Your task to perform on an android device: Go to Yahoo.com Image 0: 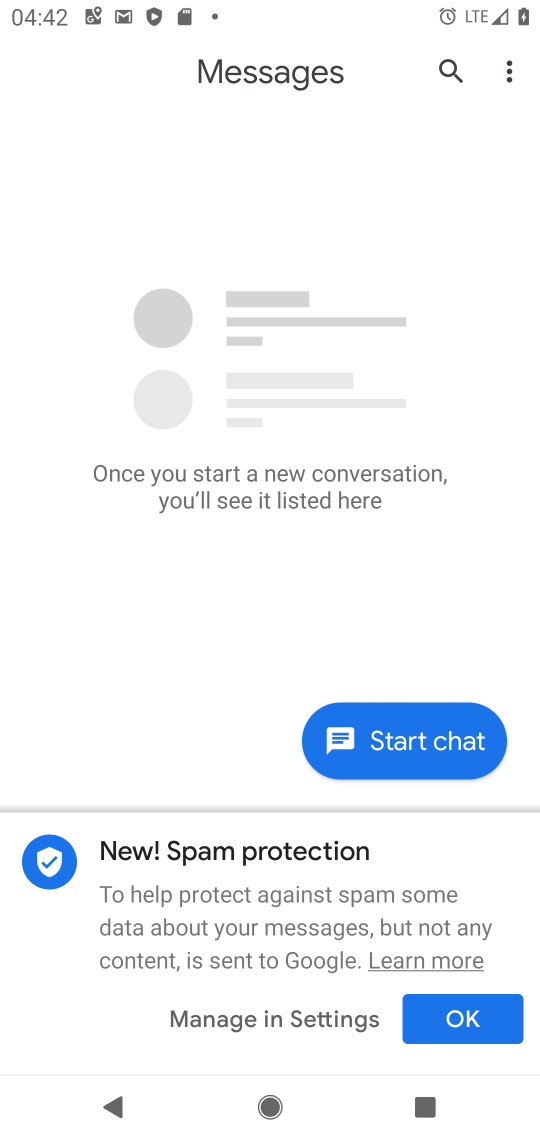
Step 0: press back button
Your task to perform on an android device: Go to Yahoo.com Image 1: 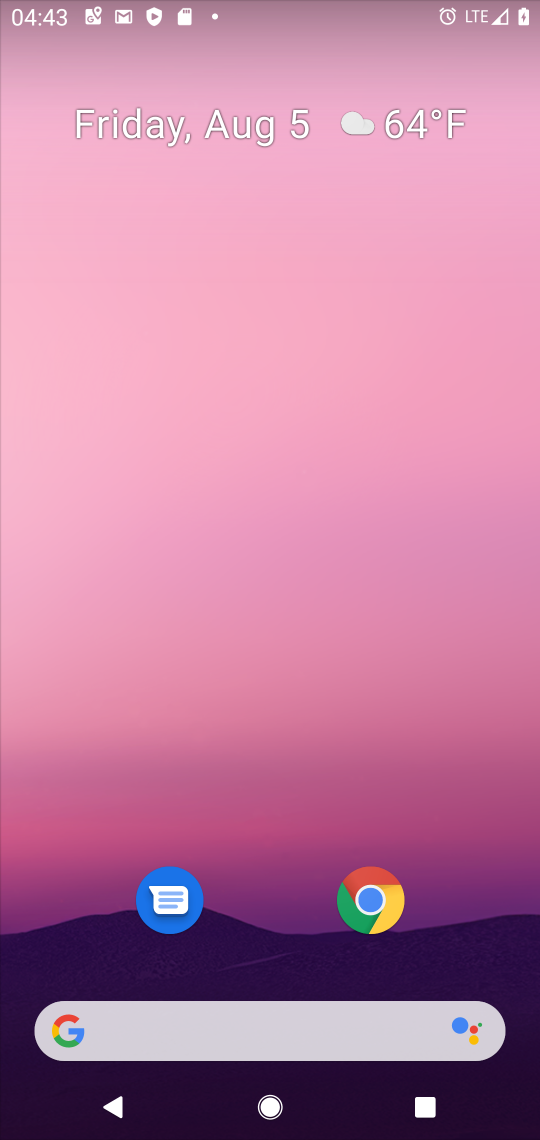
Step 1: click (386, 915)
Your task to perform on an android device: Go to Yahoo.com Image 2: 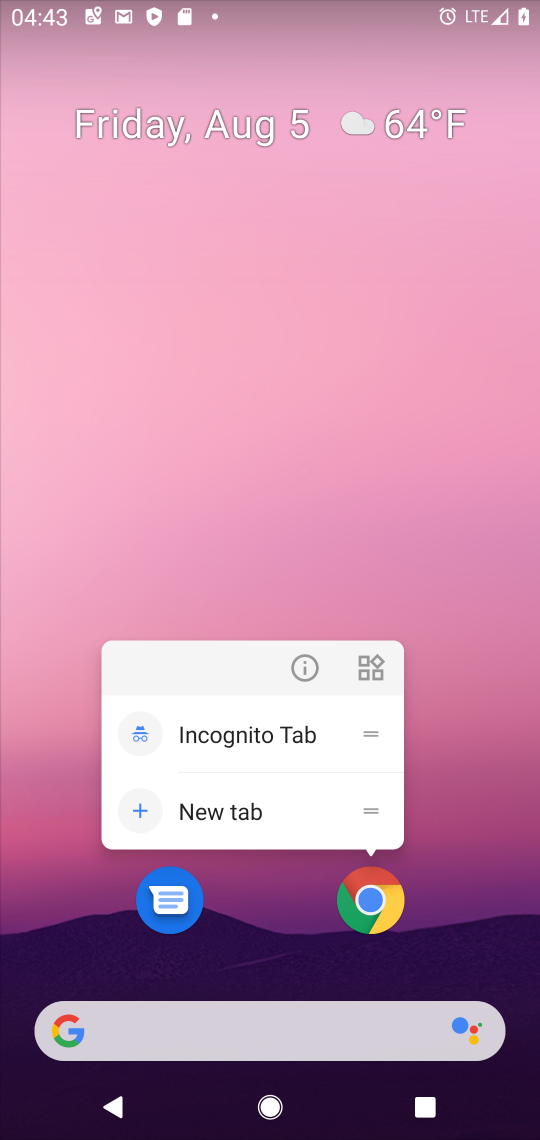
Step 2: click (388, 899)
Your task to perform on an android device: Go to Yahoo.com Image 3: 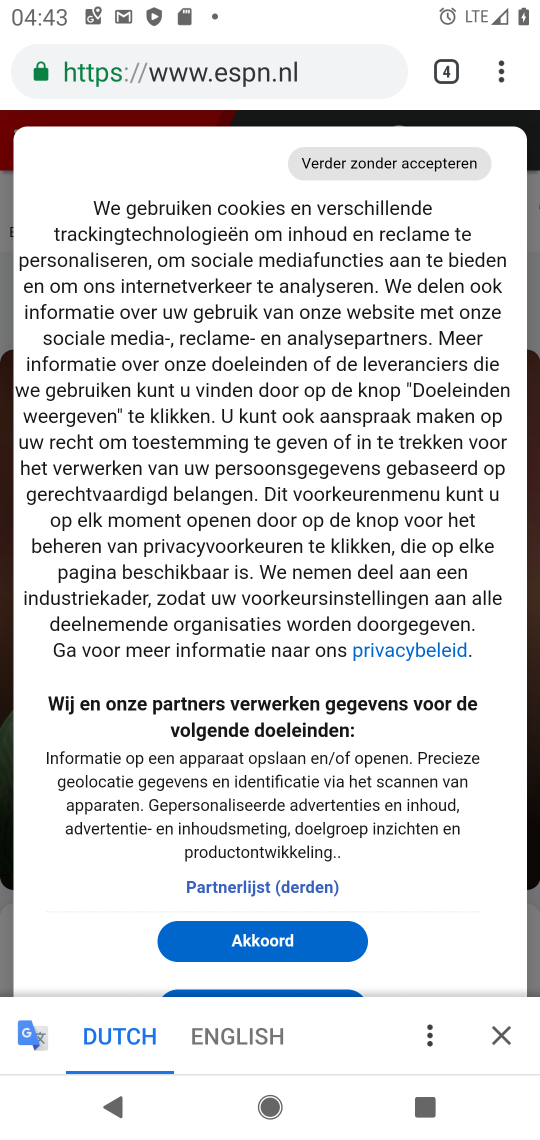
Step 3: click (440, 77)
Your task to perform on an android device: Go to Yahoo.com Image 4: 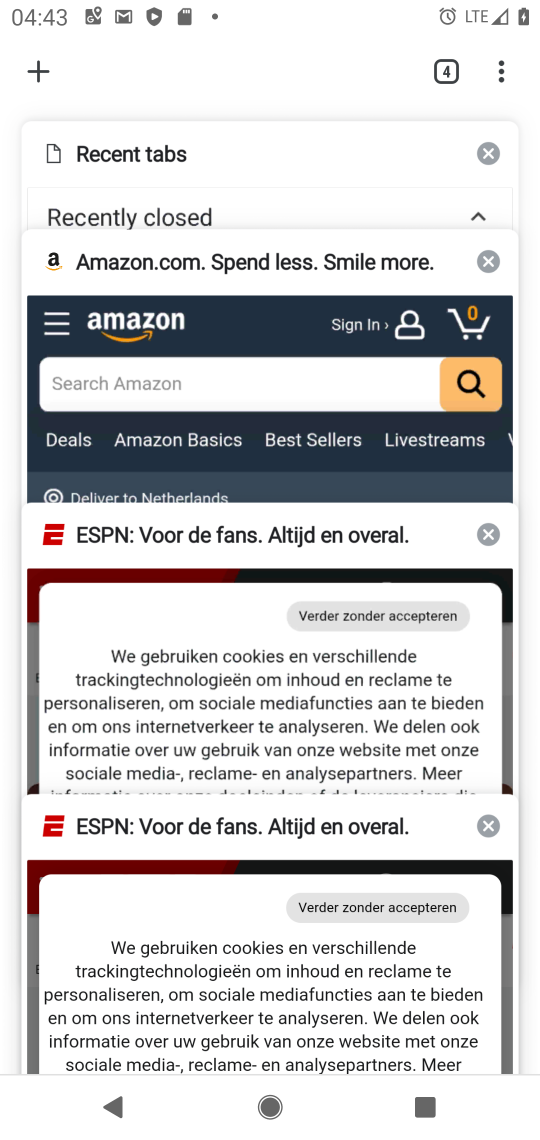
Step 4: click (23, 79)
Your task to perform on an android device: Go to Yahoo.com Image 5: 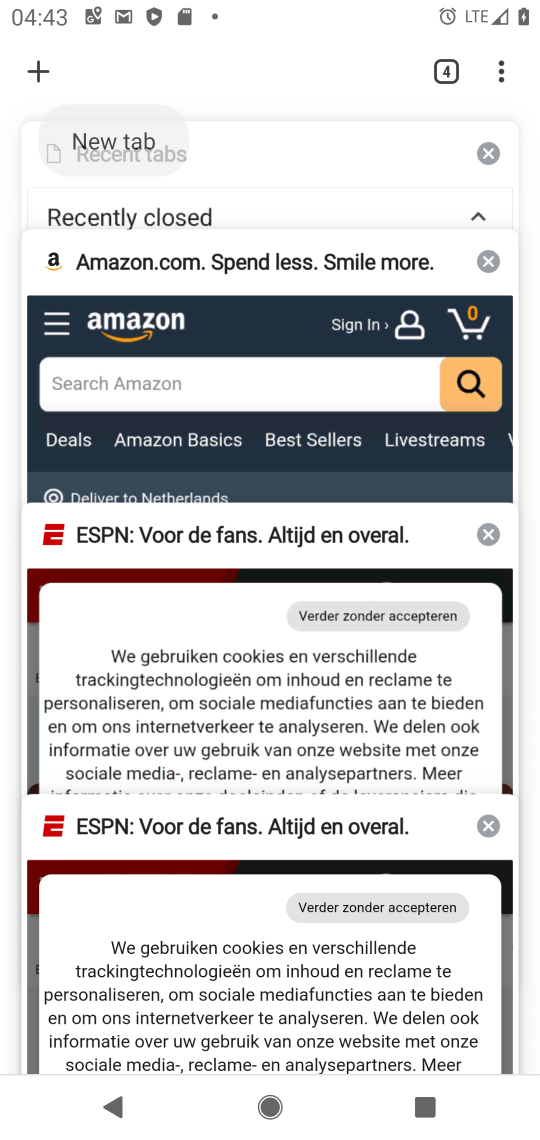
Step 5: click (33, 67)
Your task to perform on an android device: Go to Yahoo.com Image 6: 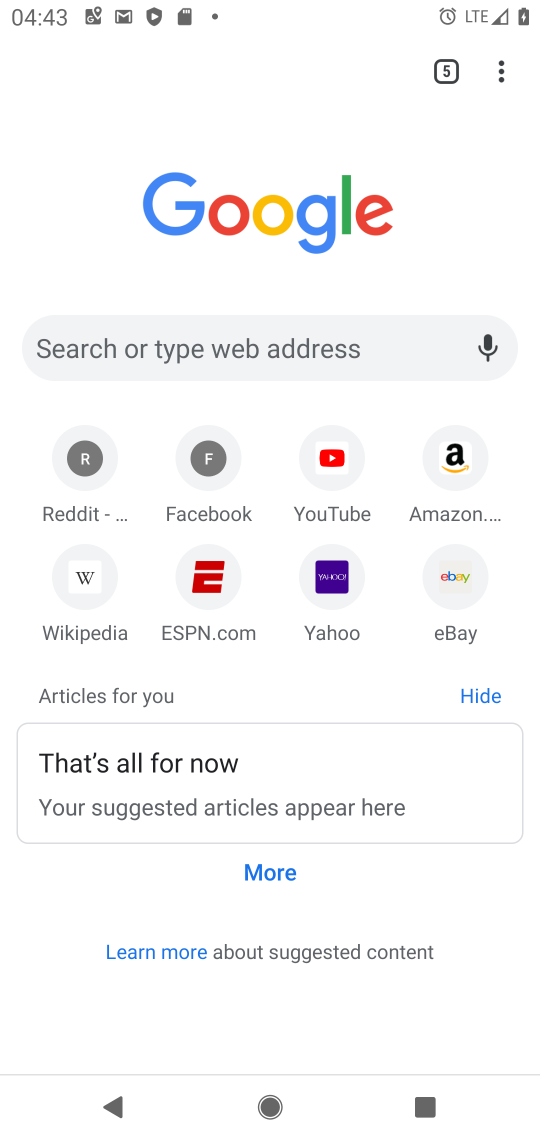
Step 6: click (317, 590)
Your task to perform on an android device: Go to Yahoo.com Image 7: 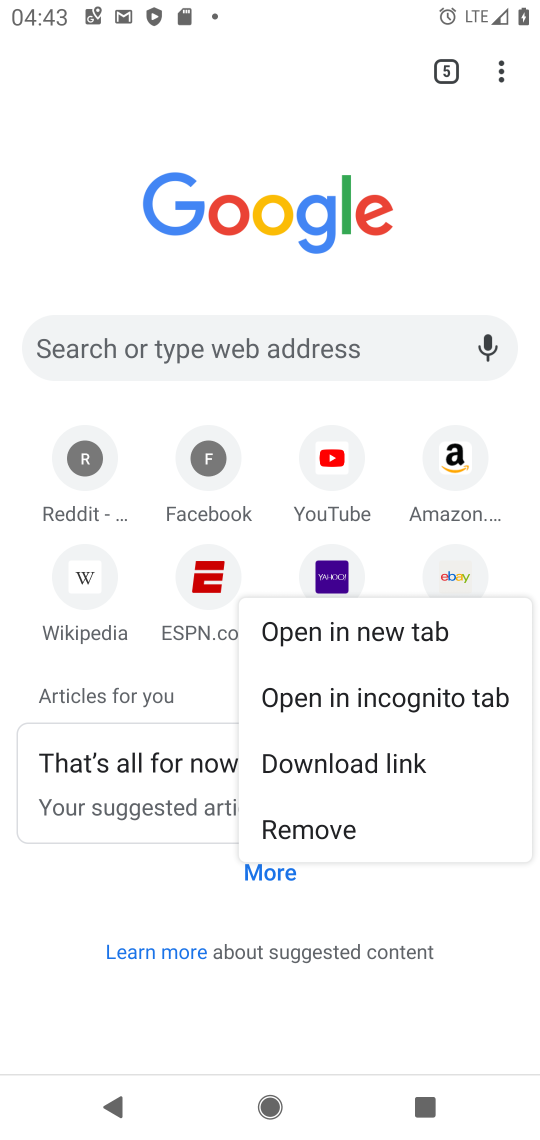
Step 7: click (325, 574)
Your task to perform on an android device: Go to Yahoo.com Image 8: 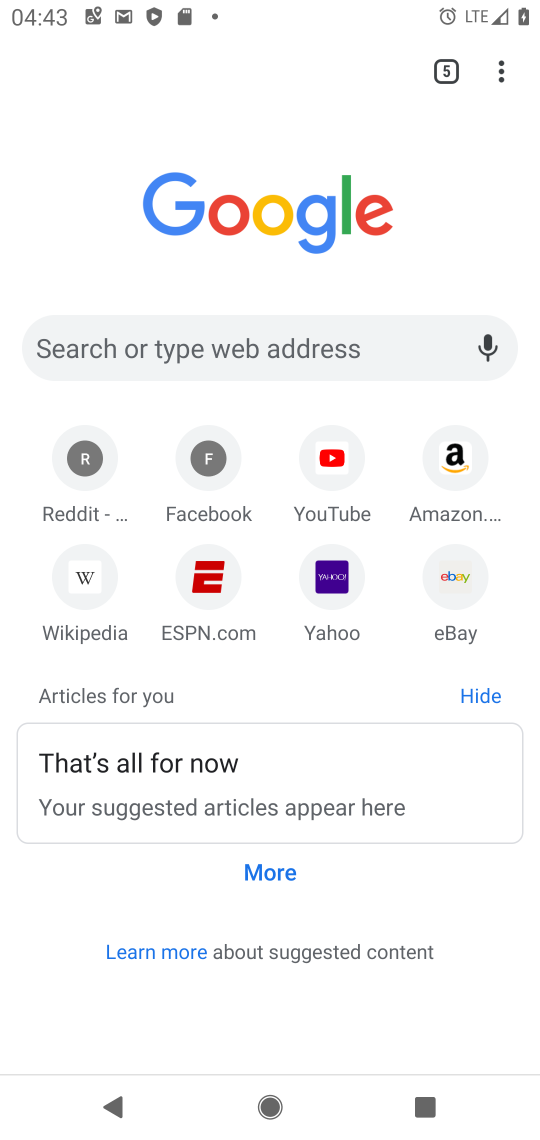
Step 8: click (326, 602)
Your task to perform on an android device: Go to Yahoo.com Image 9: 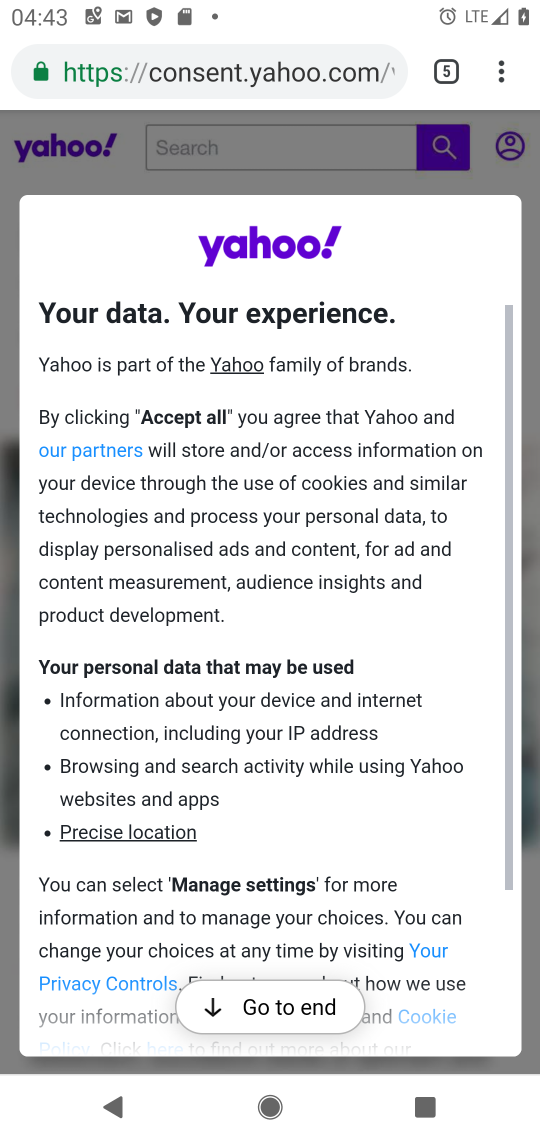
Step 9: task complete